Your task to perform on an android device: change keyboard looks Image 0: 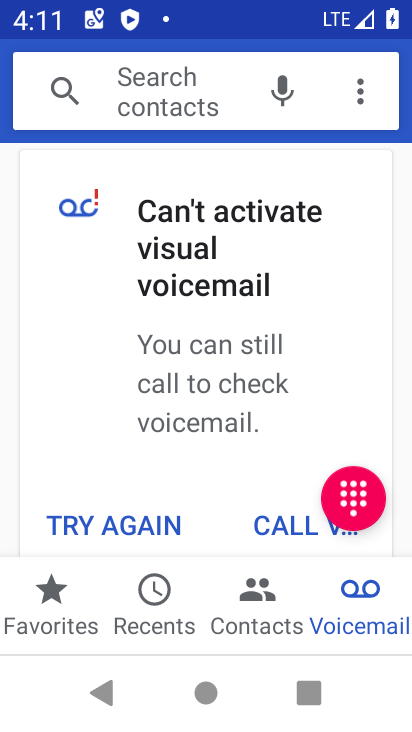
Step 0: press home button
Your task to perform on an android device: change keyboard looks Image 1: 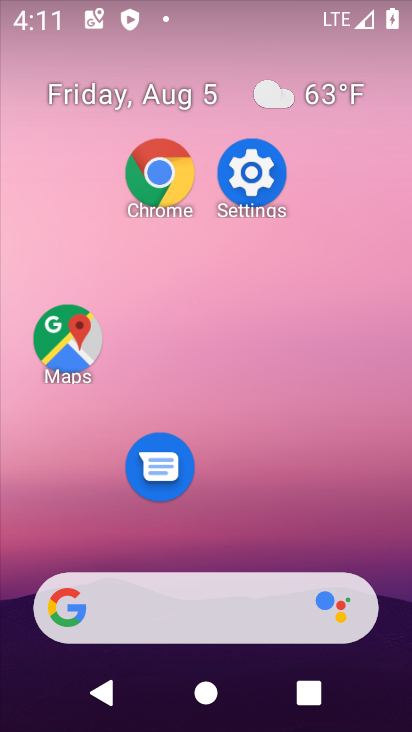
Step 1: drag from (275, 535) to (335, 37)
Your task to perform on an android device: change keyboard looks Image 2: 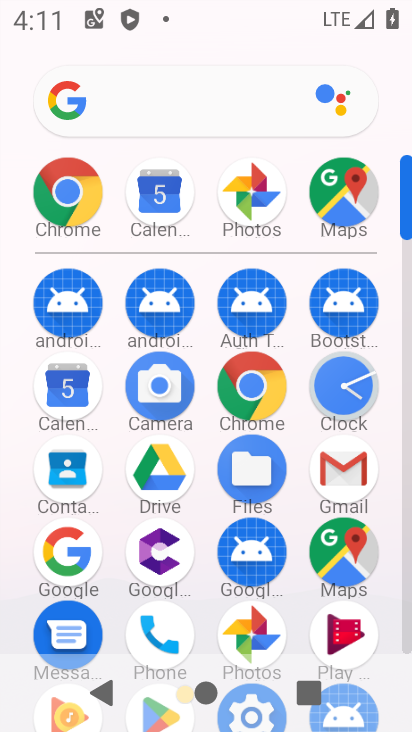
Step 2: drag from (286, 596) to (293, 175)
Your task to perform on an android device: change keyboard looks Image 3: 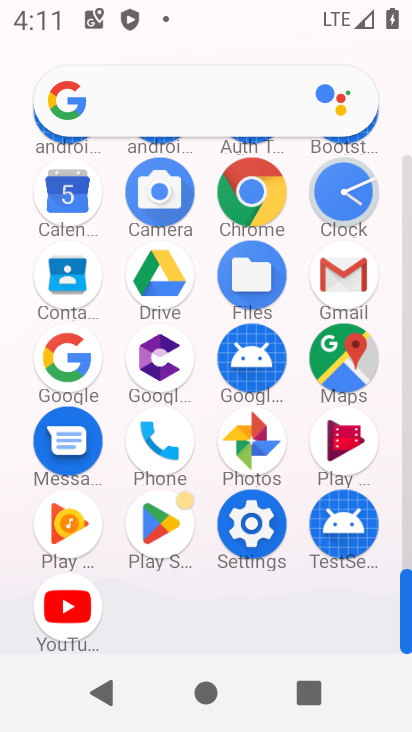
Step 3: click (257, 525)
Your task to perform on an android device: change keyboard looks Image 4: 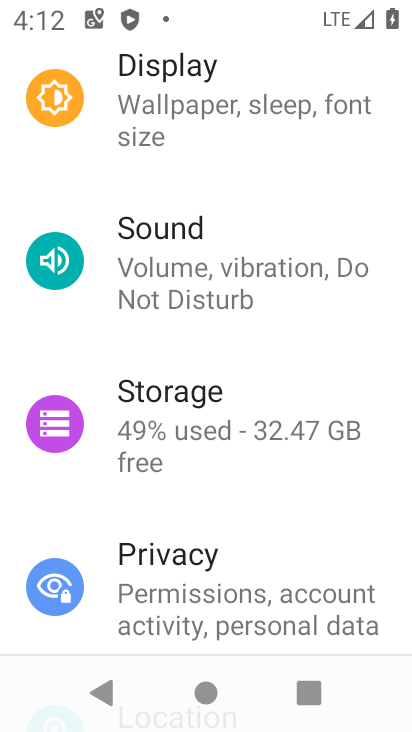
Step 4: drag from (255, 177) to (218, 477)
Your task to perform on an android device: change keyboard looks Image 5: 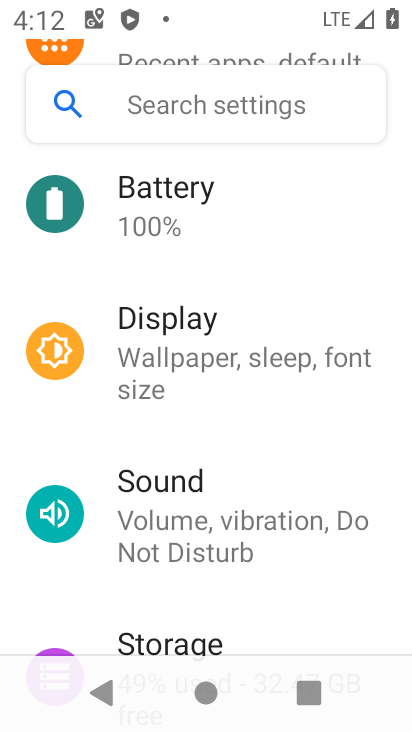
Step 5: drag from (238, 590) to (339, 180)
Your task to perform on an android device: change keyboard looks Image 6: 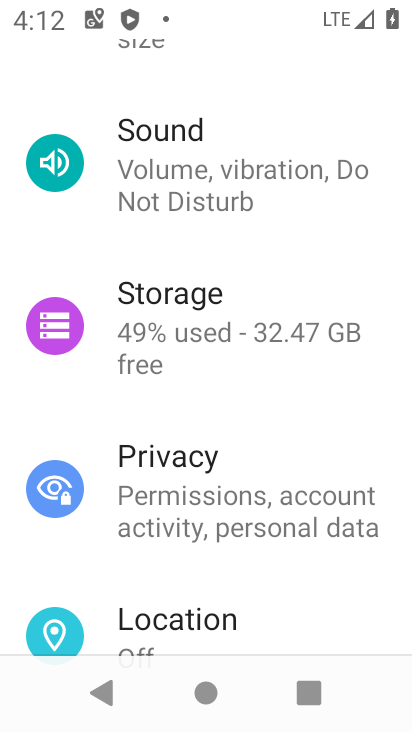
Step 6: drag from (242, 572) to (287, 247)
Your task to perform on an android device: change keyboard looks Image 7: 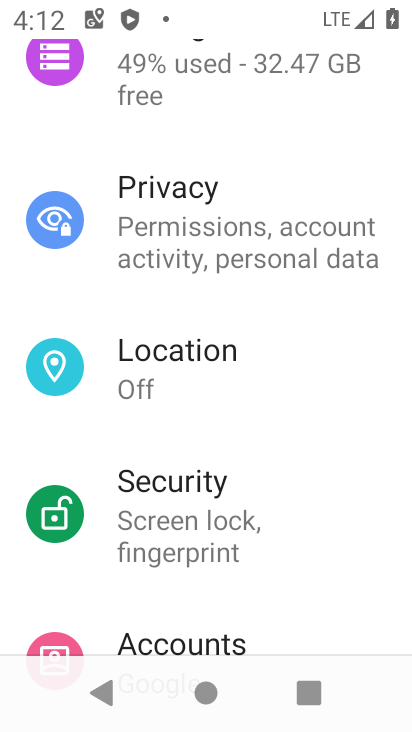
Step 7: drag from (258, 610) to (296, 260)
Your task to perform on an android device: change keyboard looks Image 8: 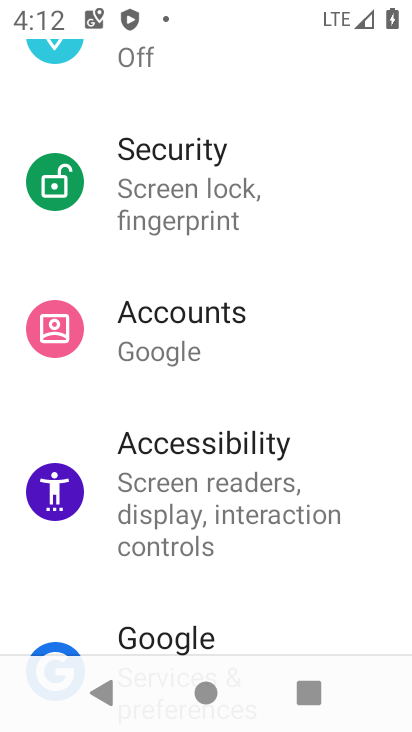
Step 8: drag from (284, 566) to (332, 281)
Your task to perform on an android device: change keyboard looks Image 9: 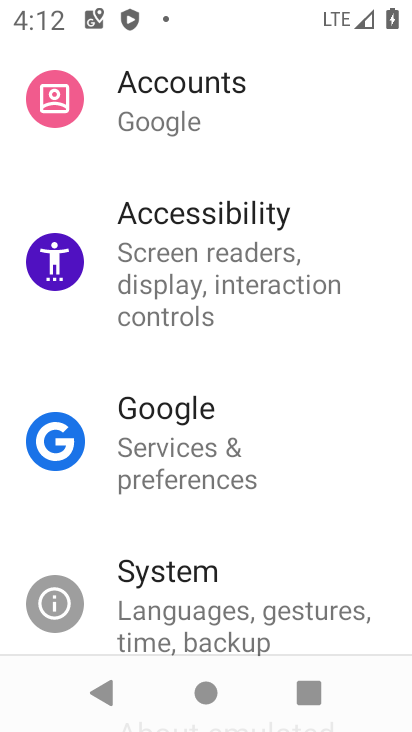
Step 9: click (178, 594)
Your task to perform on an android device: change keyboard looks Image 10: 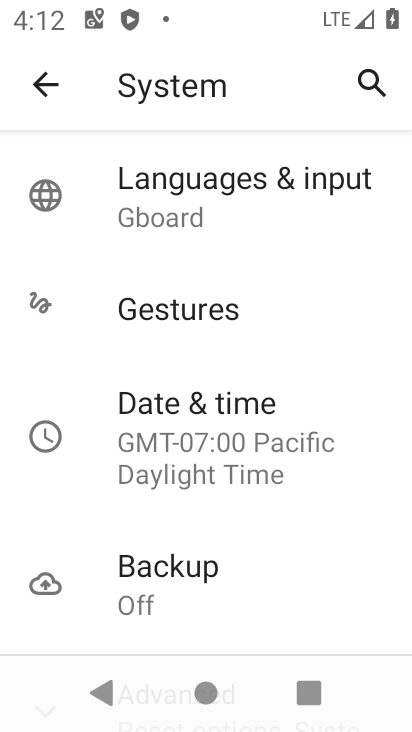
Step 10: click (155, 213)
Your task to perform on an android device: change keyboard looks Image 11: 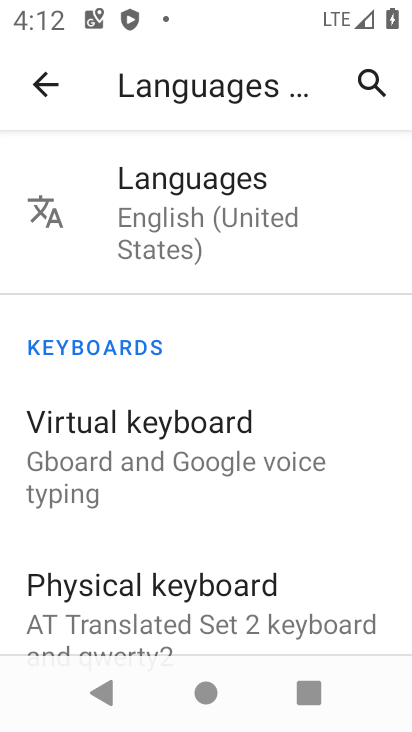
Step 11: click (131, 451)
Your task to perform on an android device: change keyboard looks Image 12: 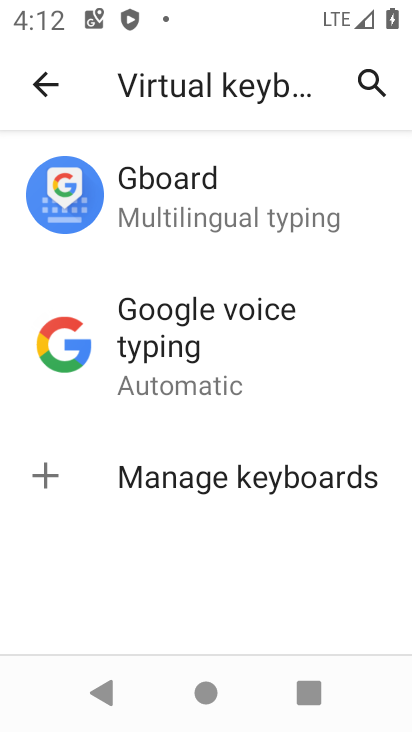
Step 12: click (143, 203)
Your task to perform on an android device: change keyboard looks Image 13: 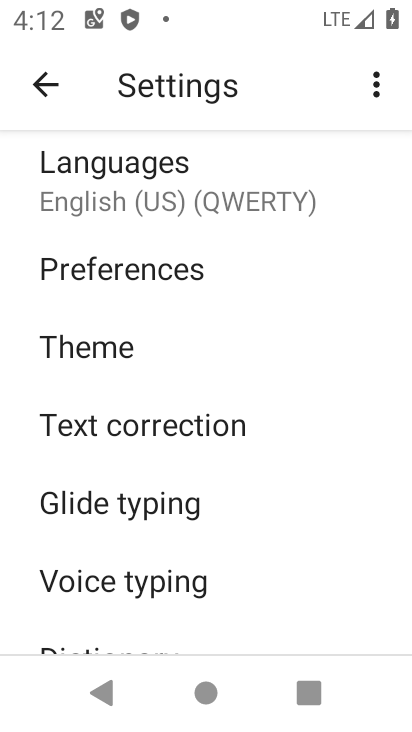
Step 13: click (112, 344)
Your task to perform on an android device: change keyboard looks Image 14: 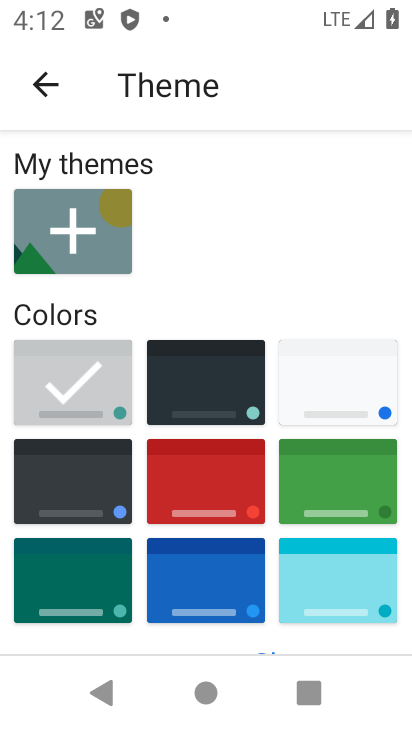
Step 14: click (218, 516)
Your task to perform on an android device: change keyboard looks Image 15: 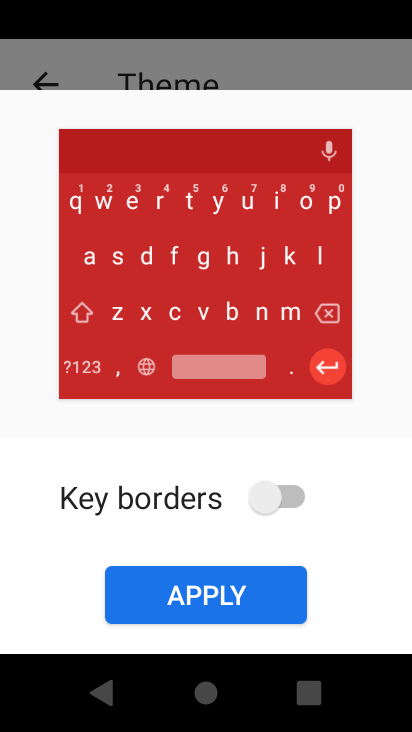
Step 15: click (301, 497)
Your task to perform on an android device: change keyboard looks Image 16: 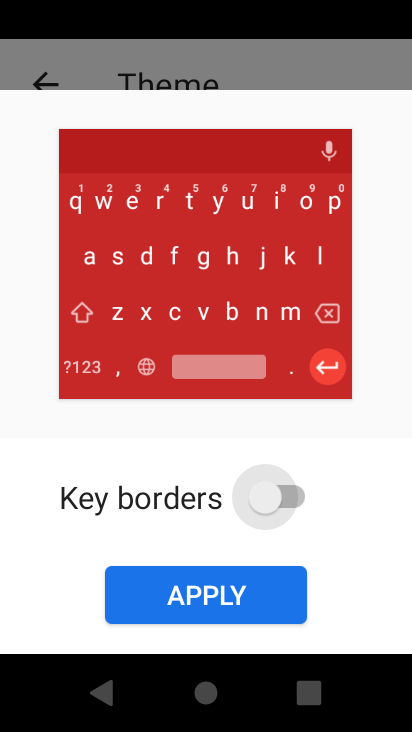
Step 16: click (253, 606)
Your task to perform on an android device: change keyboard looks Image 17: 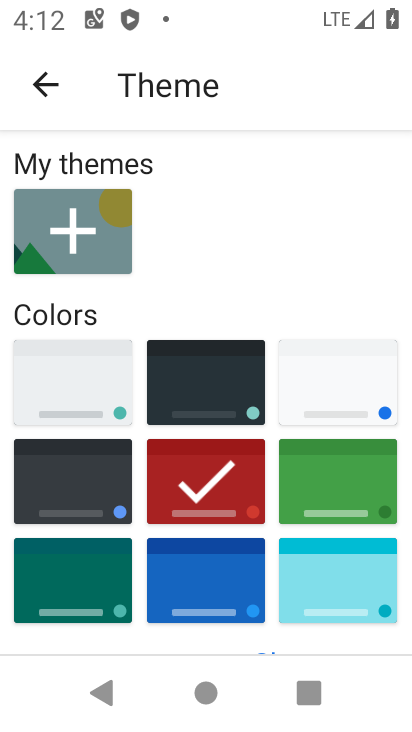
Step 17: task complete